Your task to perform on an android device: Do I have any events tomorrow? Image 0: 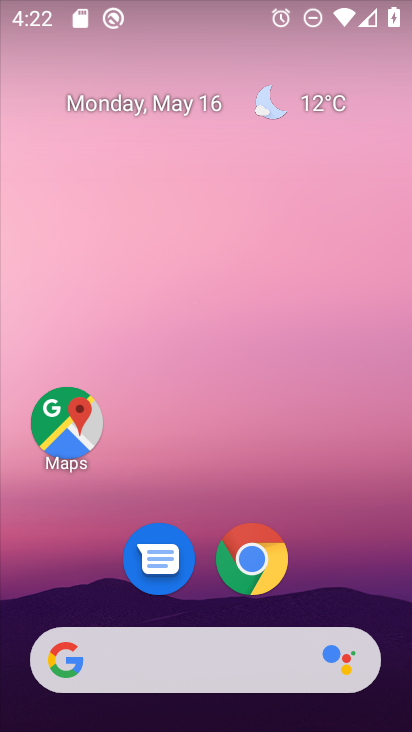
Step 0: drag from (343, 579) to (298, 134)
Your task to perform on an android device: Do I have any events tomorrow? Image 1: 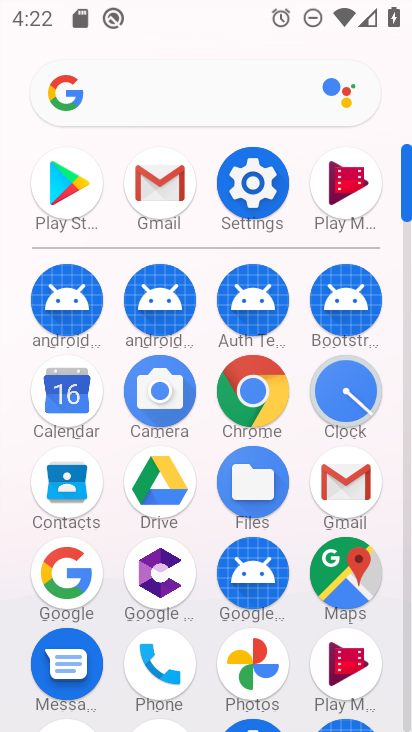
Step 1: click (259, 175)
Your task to perform on an android device: Do I have any events tomorrow? Image 2: 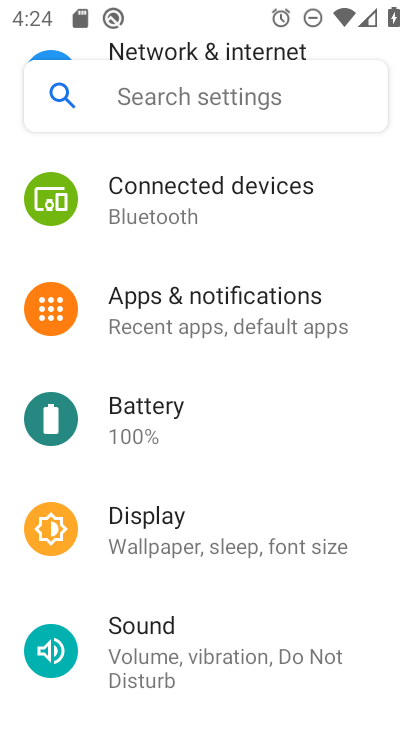
Step 2: press home button
Your task to perform on an android device: Do I have any events tomorrow? Image 3: 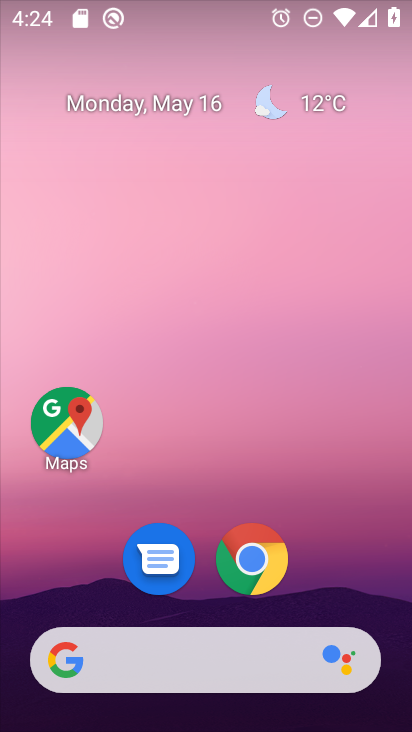
Step 3: drag from (384, 566) to (296, 192)
Your task to perform on an android device: Do I have any events tomorrow? Image 4: 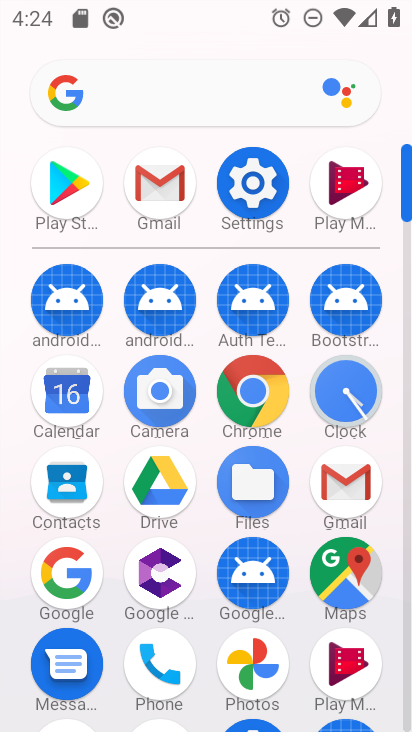
Step 4: click (239, 190)
Your task to perform on an android device: Do I have any events tomorrow? Image 5: 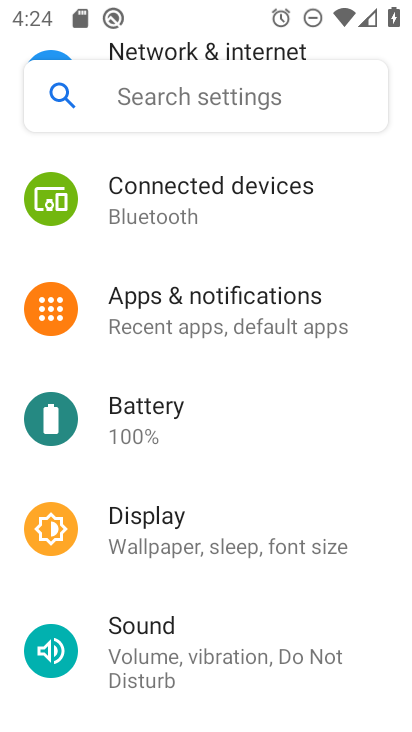
Step 5: press home button
Your task to perform on an android device: Do I have any events tomorrow? Image 6: 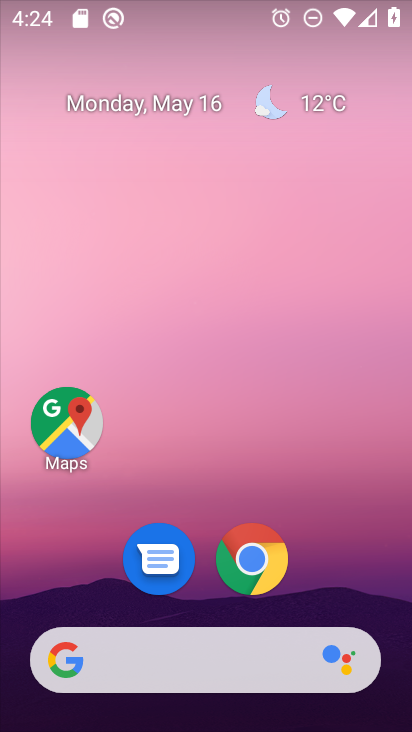
Step 6: drag from (370, 573) to (311, 144)
Your task to perform on an android device: Do I have any events tomorrow? Image 7: 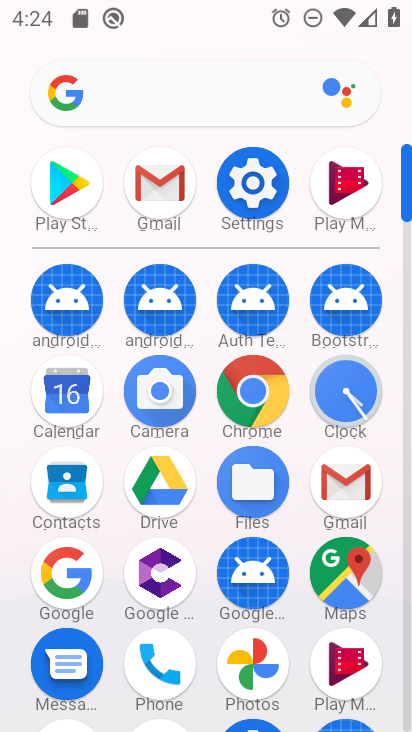
Step 7: click (57, 428)
Your task to perform on an android device: Do I have any events tomorrow? Image 8: 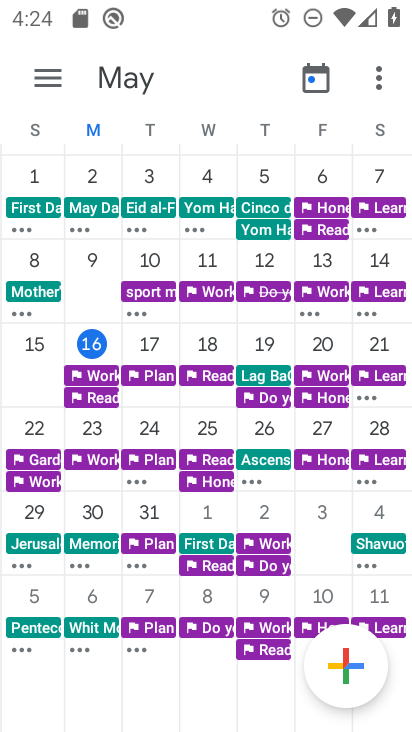
Step 8: task complete